Your task to perform on an android device: Open the phone app and click the voicemail tab. Image 0: 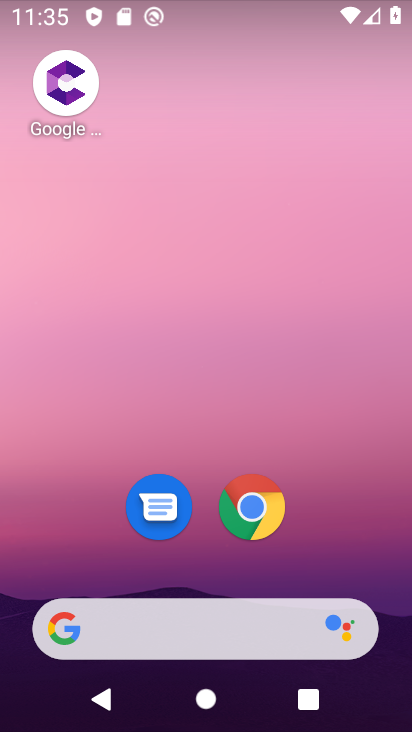
Step 0: drag from (244, 553) to (108, 91)
Your task to perform on an android device: Open the phone app and click the voicemail tab. Image 1: 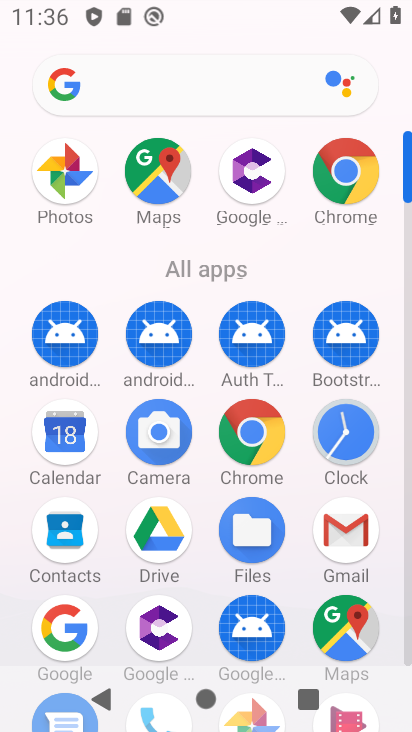
Step 1: drag from (182, 576) to (152, 213)
Your task to perform on an android device: Open the phone app and click the voicemail tab. Image 2: 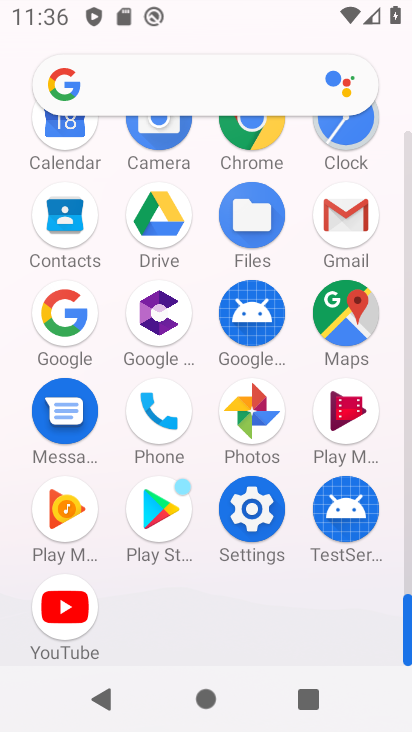
Step 2: click (171, 432)
Your task to perform on an android device: Open the phone app and click the voicemail tab. Image 3: 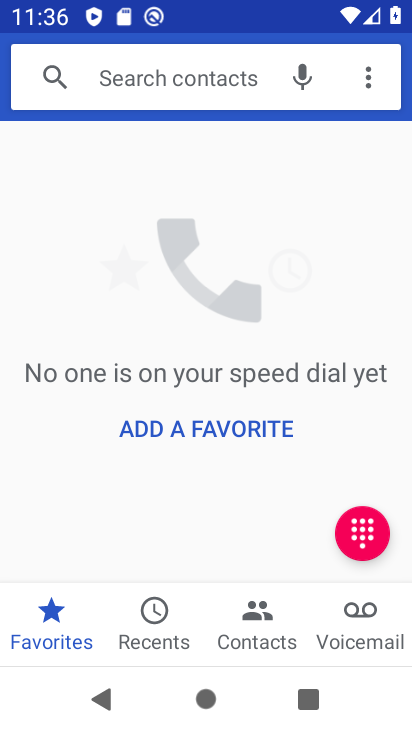
Step 3: click (373, 633)
Your task to perform on an android device: Open the phone app and click the voicemail tab. Image 4: 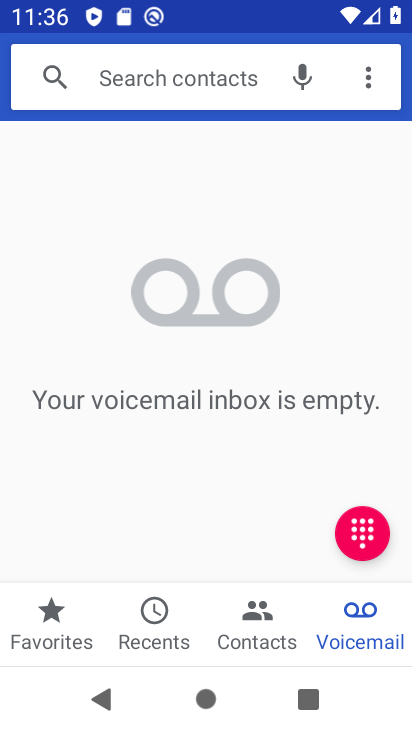
Step 4: task complete